Your task to perform on an android device: delete browsing data in the chrome app Image 0: 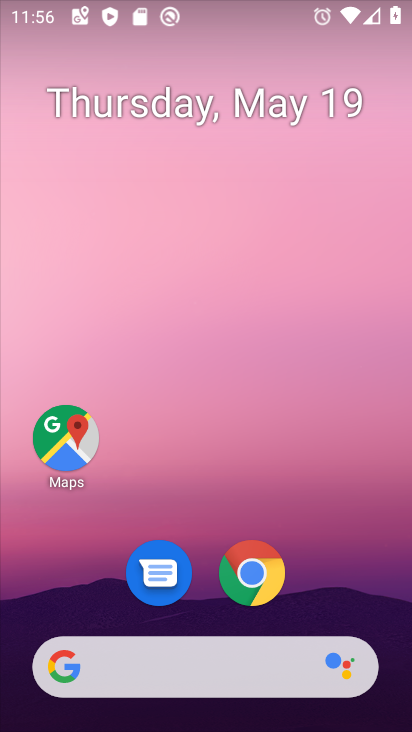
Step 0: click (253, 564)
Your task to perform on an android device: delete browsing data in the chrome app Image 1: 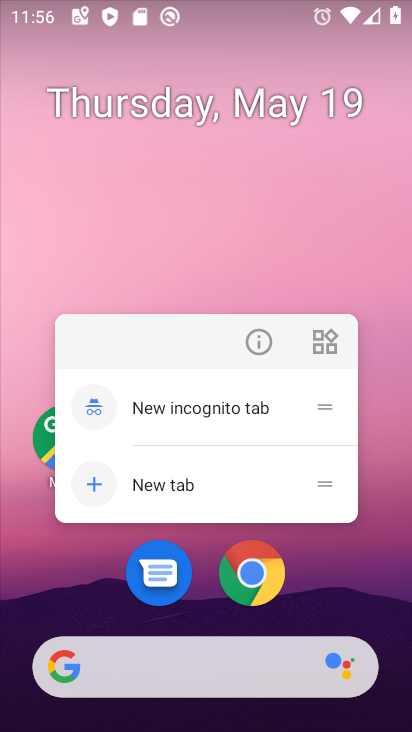
Step 1: click (256, 566)
Your task to perform on an android device: delete browsing data in the chrome app Image 2: 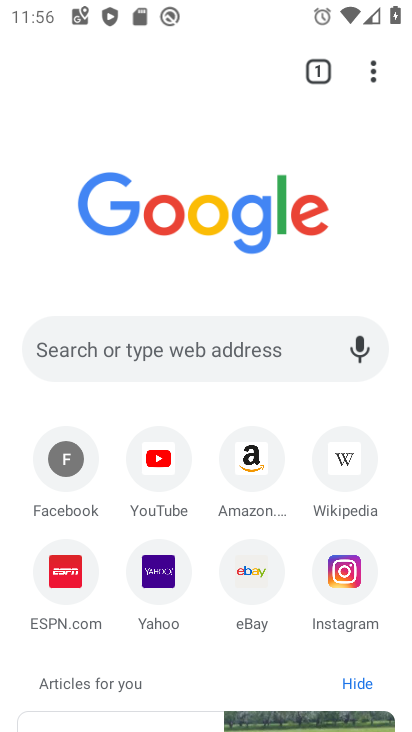
Step 2: click (373, 75)
Your task to perform on an android device: delete browsing data in the chrome app Image 3: 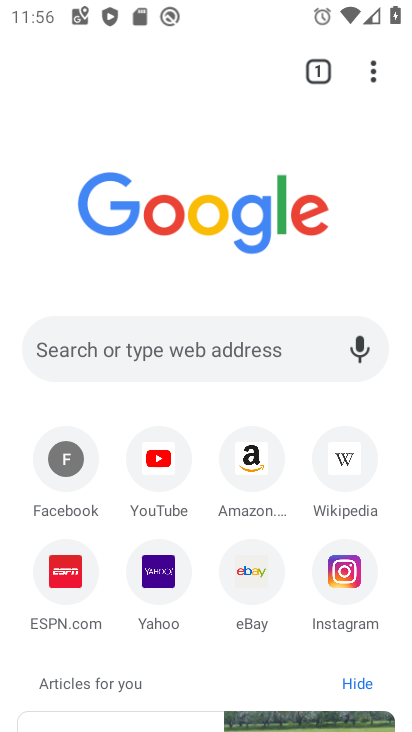
Step 3: click (379, 56)
Your task to perform on an android device: delete browsing data in the chrome app Image 4: 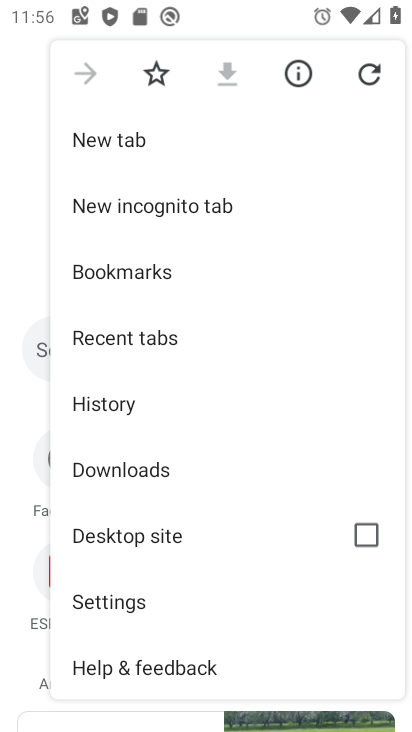
Step 4: click (125, 414)
Your task to perform on an android device: delete browsing data in the chrome app Image 5: 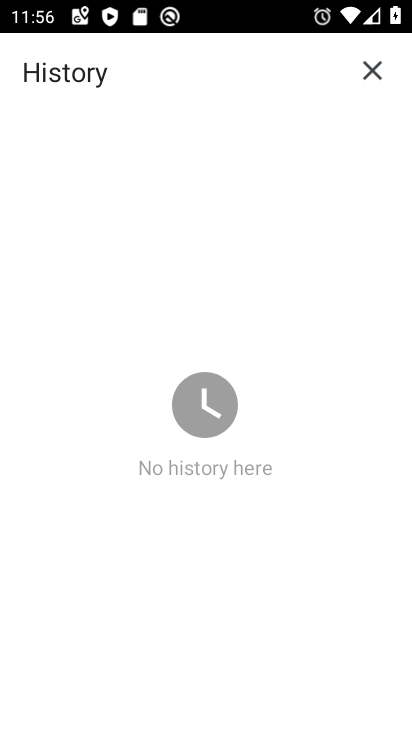
Step 5: task complete